Your task to perform on an android device: Go to notification settings Image 0: 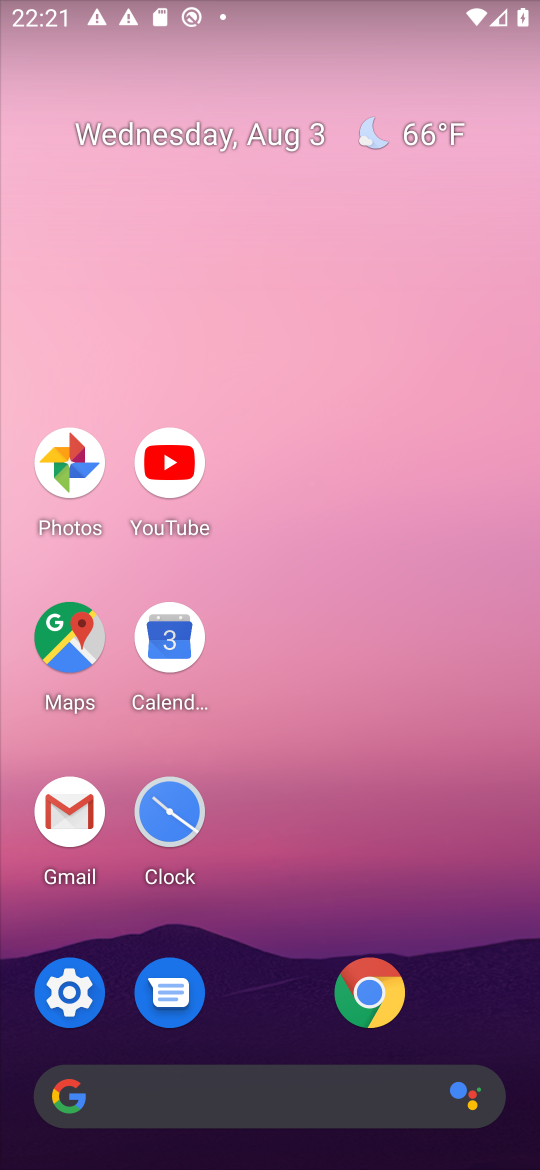
Step 0: click (63, 988)
Your task to perform on an android device: Go to notification settings Image 1: 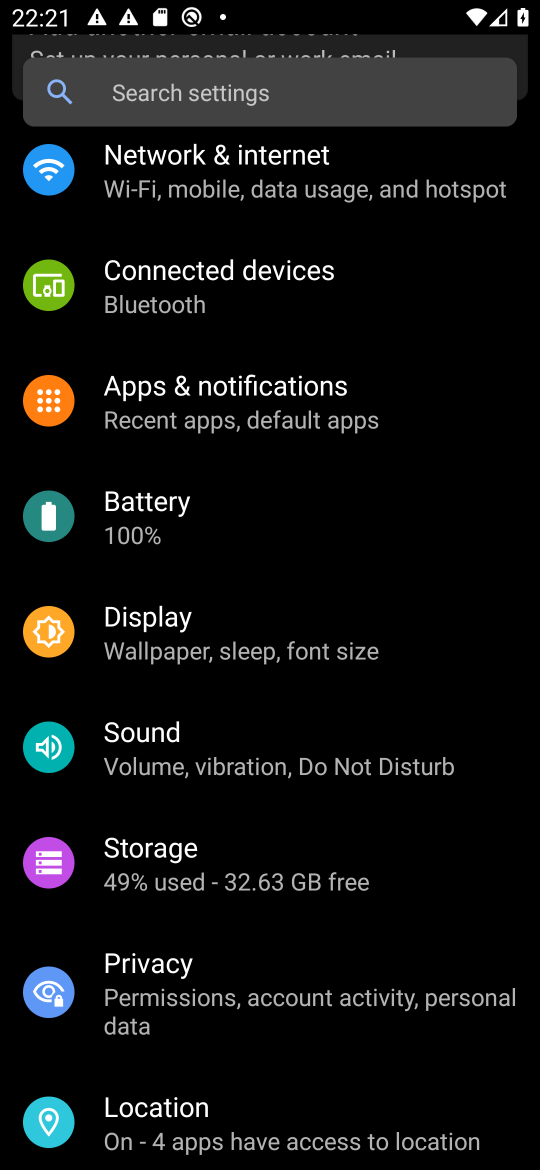
Step 1: click (229, 386)
Your task to perform on an android device: Go to notification settings Image 2: 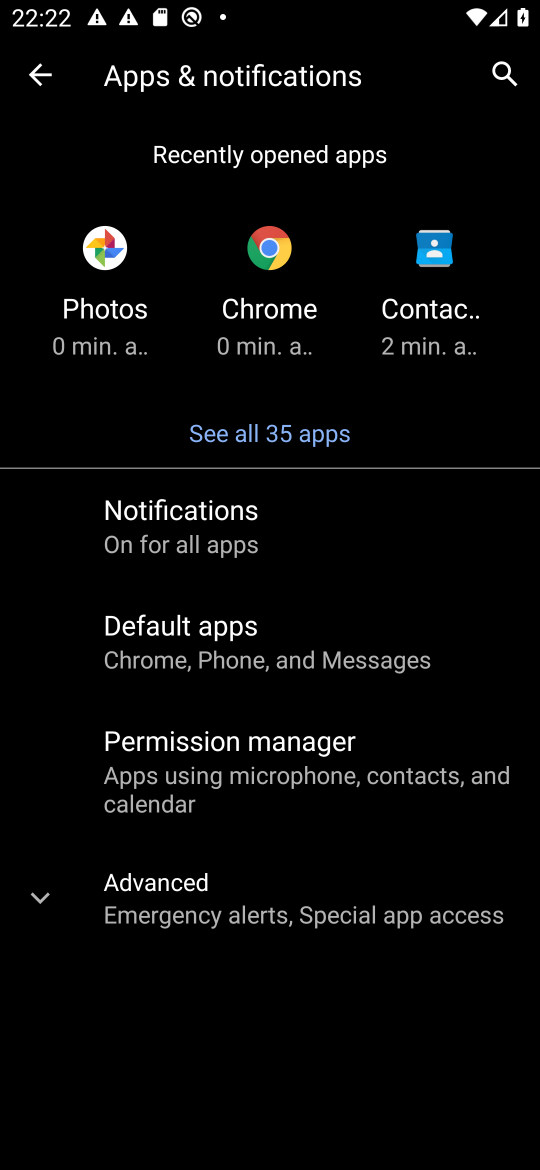
Step 2: task complete